Your task to perform on an android device: Open battery settings Image 0: 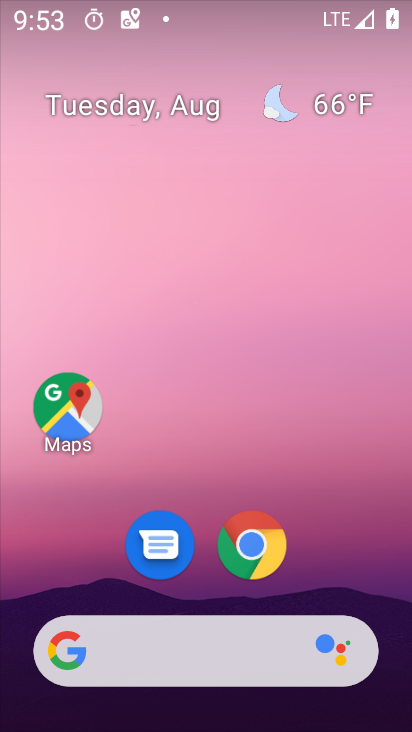
Step 0: drag from (223, 670) to (299, 211)
Your task to perform on an android device: Open battery settings Image 1: 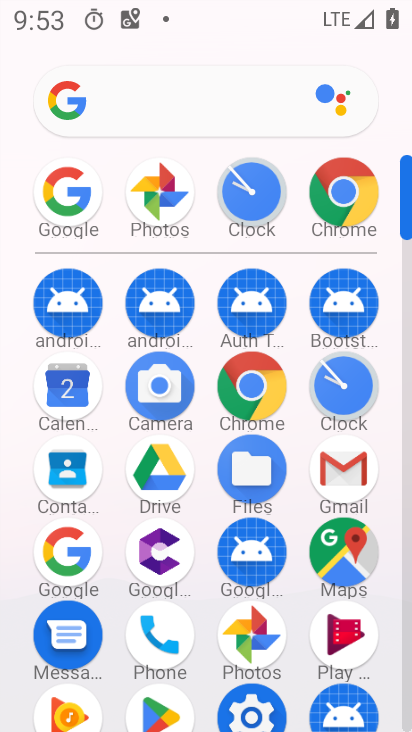
Step 1: drag from (197, 532) to (237, 247)
Your task to perform on an android device: Open battery settings Image 2: 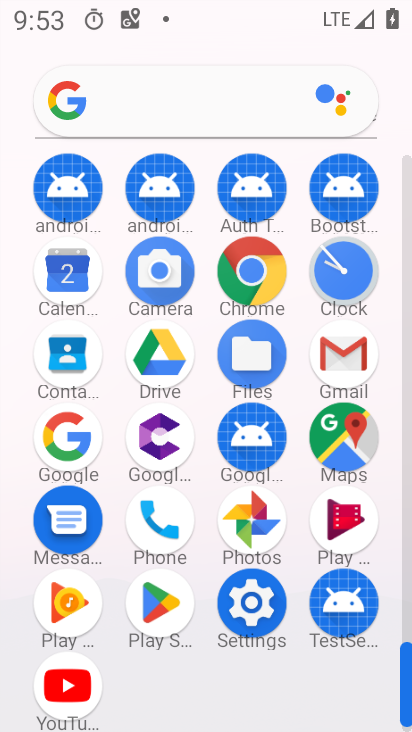
Step 2: click (257, 616)
Your task to perform on an android device: Open battery settings Image 3: 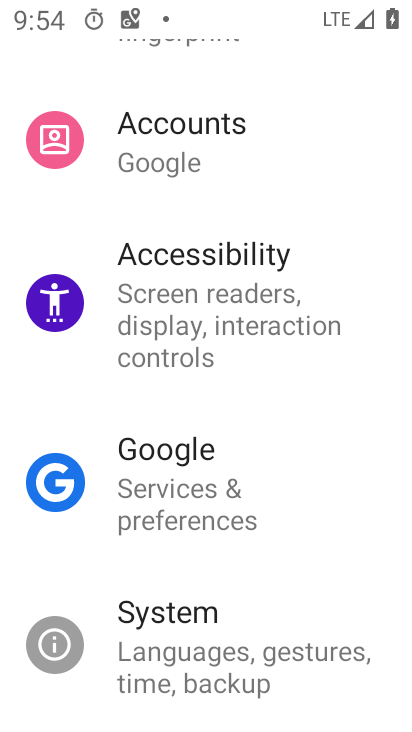
Step 3: drag from (218, 278) to (260, 611)
Your task to perform on an android device: Open battery settings Image 4: 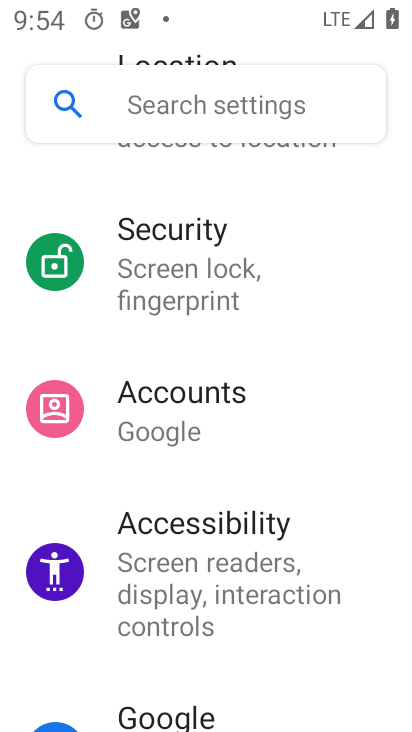
Step 4: drag from (245, 243) to (270, 679)
Your task to perform on an android device: Open battery settings Image 5: 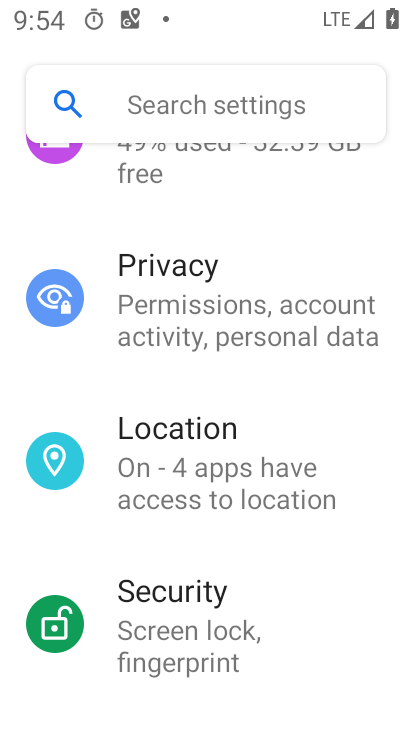
Step 5: drag from (204, 306) to (254, 629)
Your task to perform on an android device: Open battery settings Image 6: 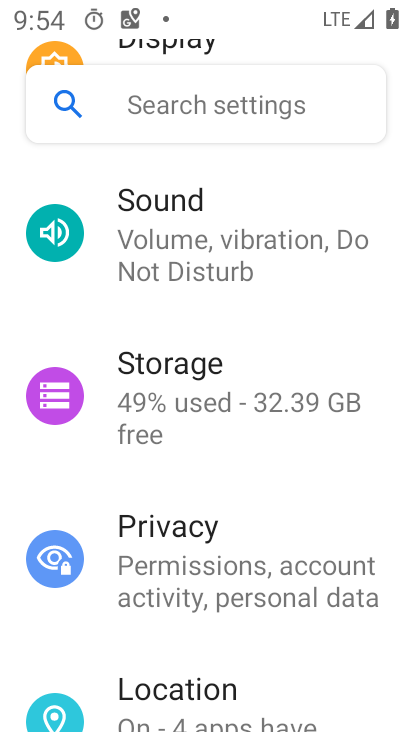
Step 6: drag from (244, 351) to (243, 603)
Your task to perform on an android device: Open battery settings Image 7: 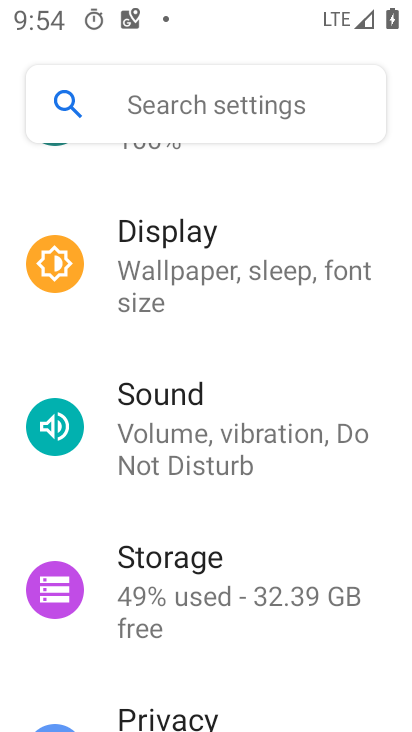
Step 7: drag from (222, 354) to (280, 709)
Your task to perform on an android device: Open battery settings Image 8: 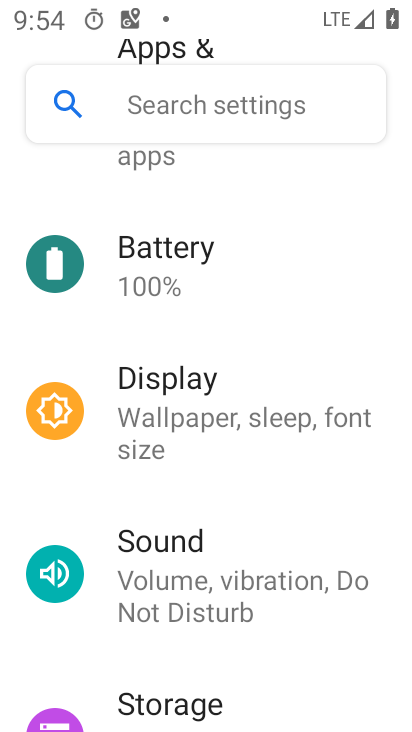
Step 8: click (220, 271)
Your task to perform on an android device: Open battery settings Image 9: 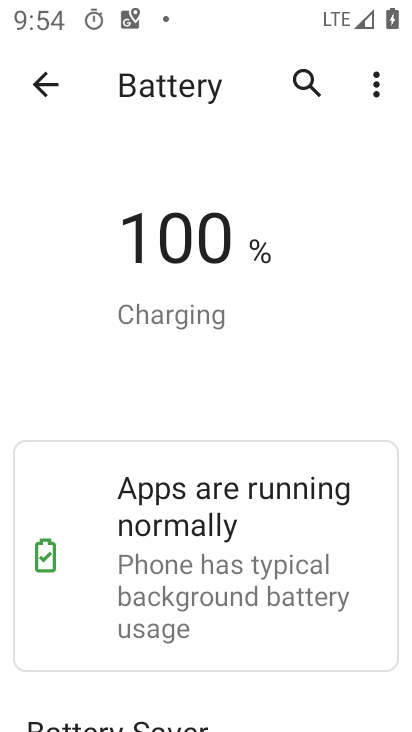
Step 9: task complete